Your task to perform on an android device: Open ESPN.com Image 0: 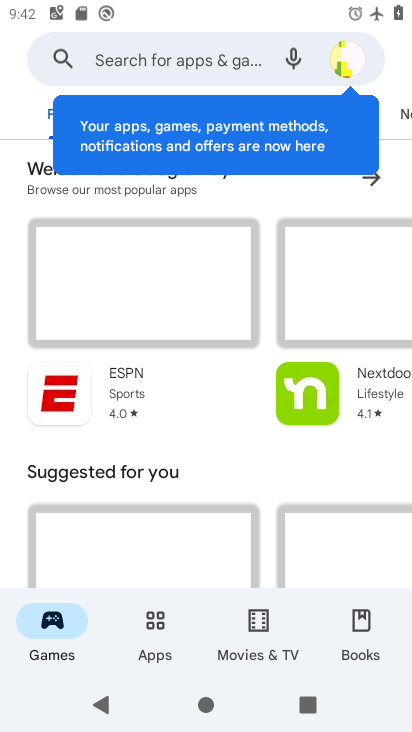
Step 0: press home button
Your task to perform on an android device: Open ESPN.com Image 1: 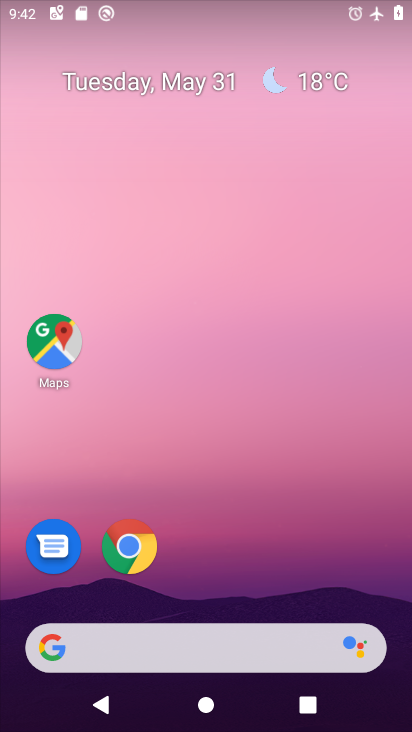
Step 1: click (140, 545)
Your task to perform on an android device: Open ESPN.com Image 2: 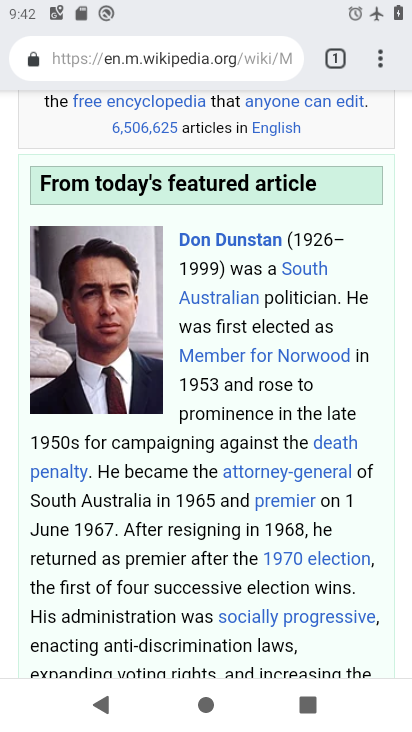
Step 2: click (187, 53)
Your task to perform on an android device: Open ESPN.com Image 3: 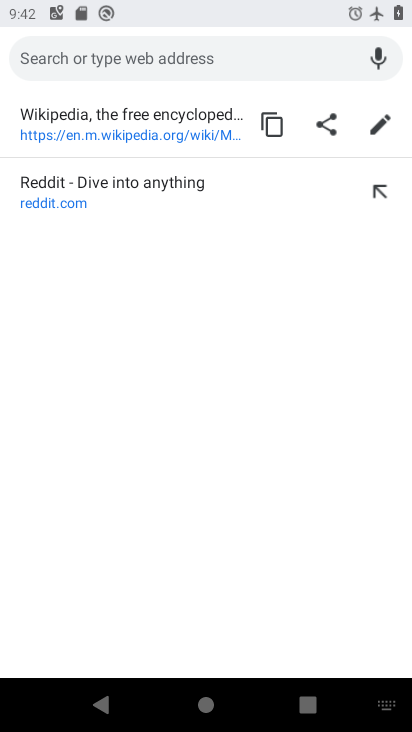
Step 3: type "ESPN.com"
Your task to perform on an android device: Open ESPN.com Image 4: 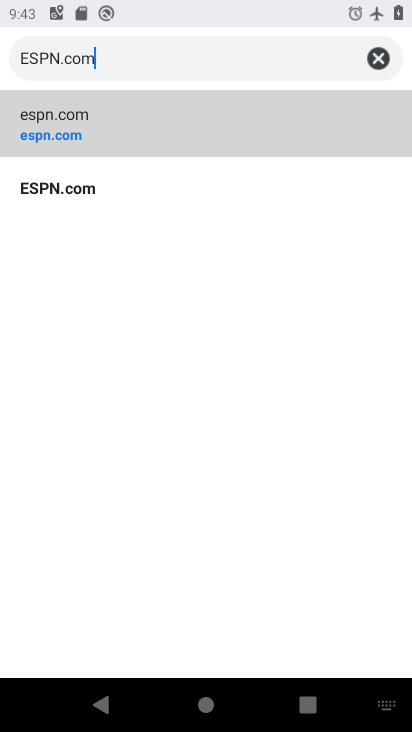
Step 4: click (79, 189)
Your task to perform on an android device: Open ESPN.com Image 5: 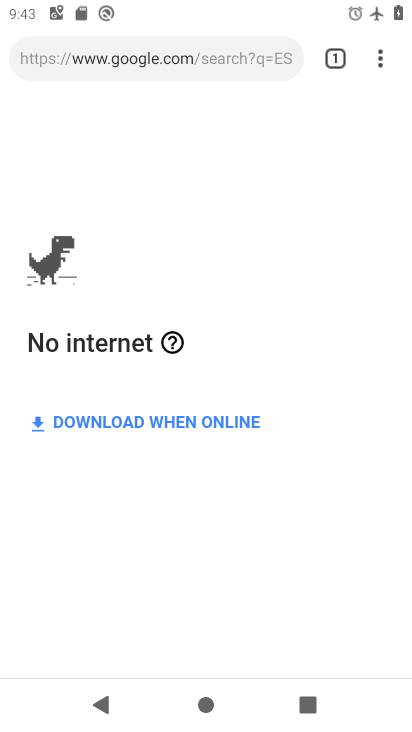
Step 5: task complete